Your task to perform on an android device: toggle location history Image 0: 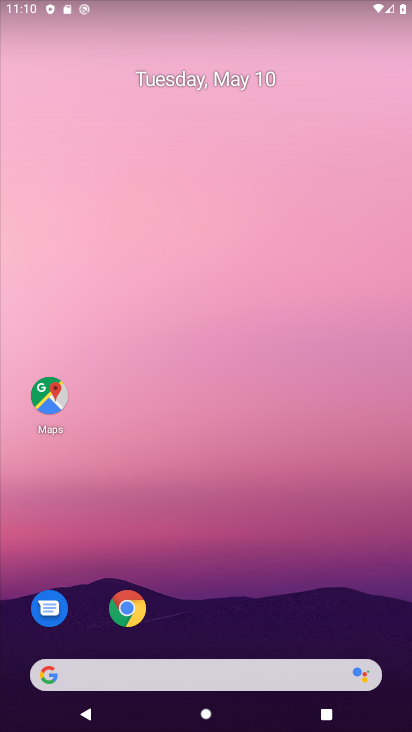
Step 0: drag from (236, 567) to (216, 46)
Your task to perform on an android device: toggle location history Image 1: 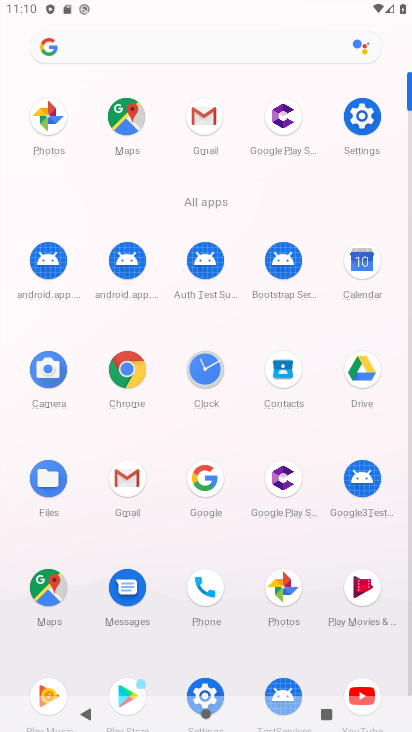
Step 1: click (359, 113)
Your task to perform on an android device: toggle location history Image 2: 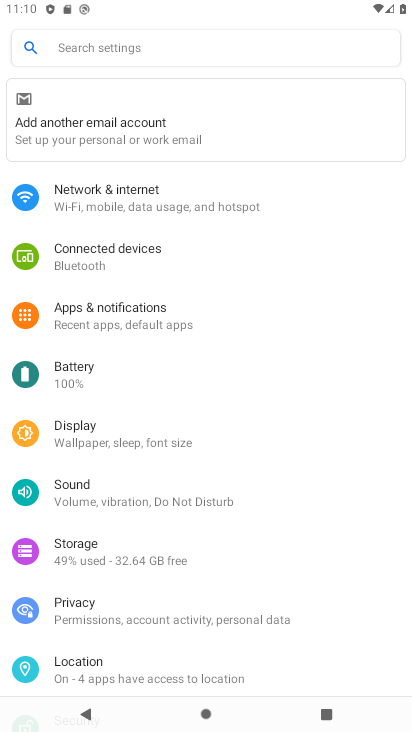
Step 2: click (142, 668)
Your task to perform on an android device: toggle location history Image 3: 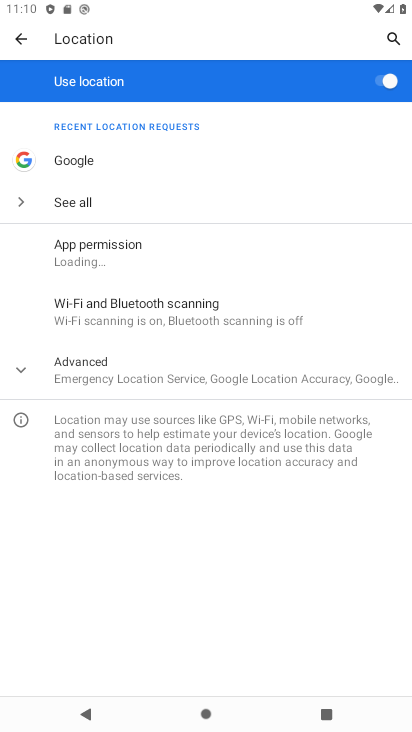
Step 3: click (22, 365)
Your task to perform on an android device: toggle location history Image 4: 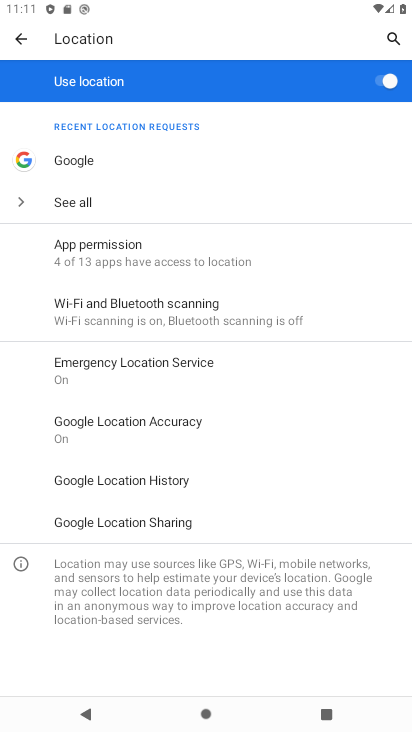
Step 4: click (123, 478)
Your task to perform on an android device: toggle location history Image 5: 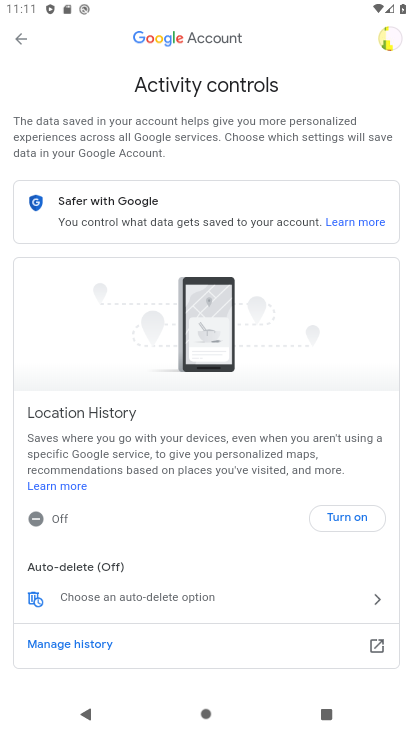
Step 5: click (340, 513)
Your task to perform on an android device: toggle location history Image 6: 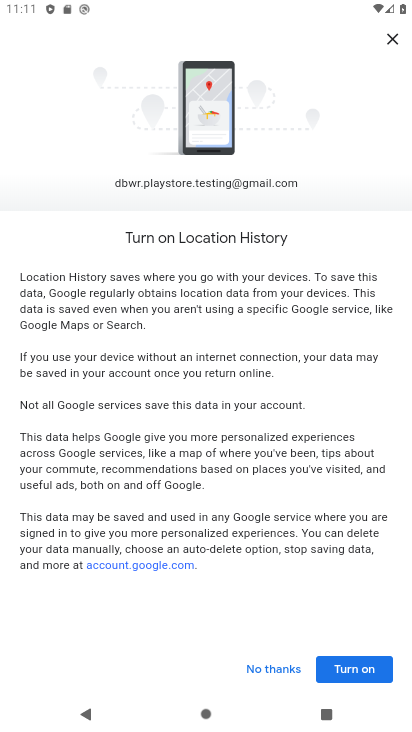
Step 6: click (367, 667)
Your task to perform on an android device: toggle location history Image 7: 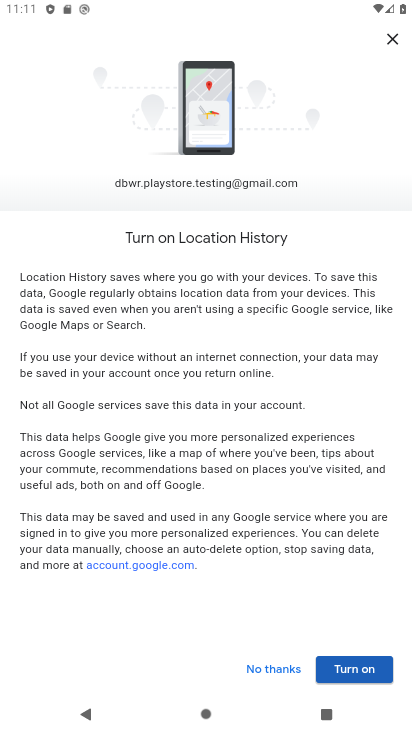
Step 7: click (367, 667)
Your task to perform on an android device: toggle location history Image 8: 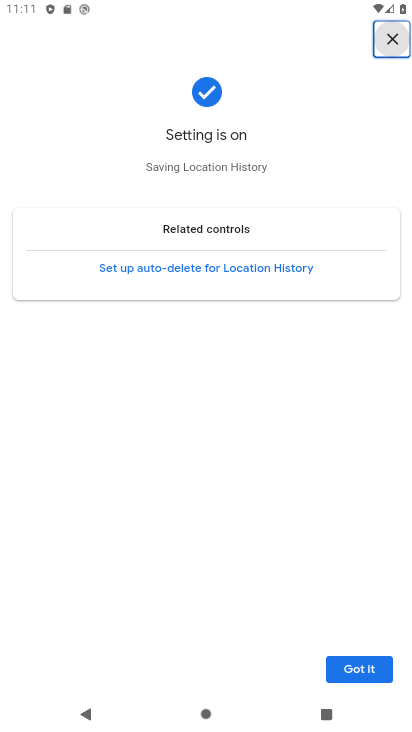
Step 8: click (367, 667)
Your task to perform on an android device: toggle location history Image 9: 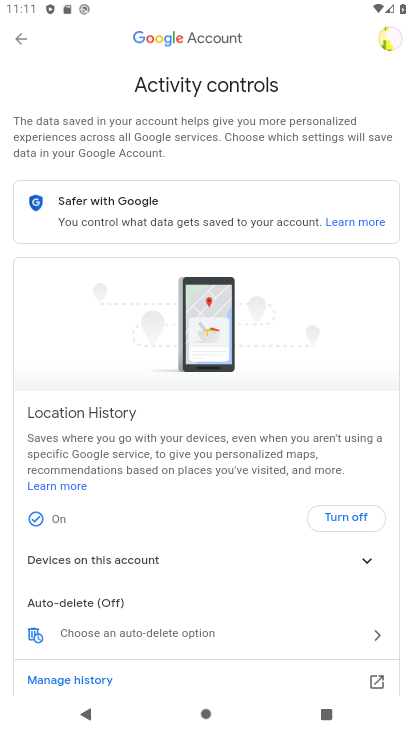
Step 9: task complete